Your task to perform on an android device: toggle show notifications on the lock screen Image 0: 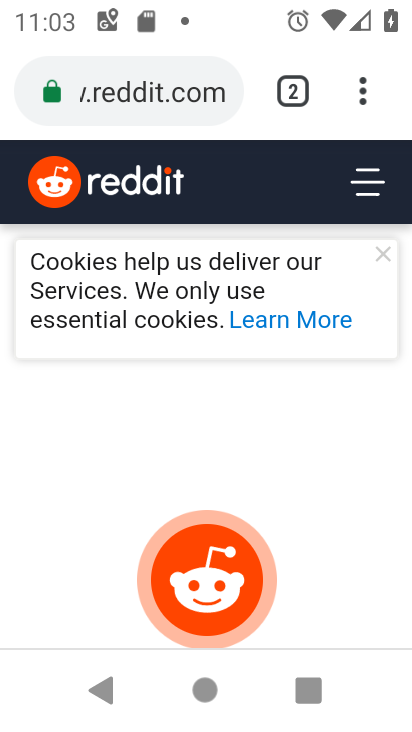
Step 0: press home button
Your task to perform on an android device: toggle show notifications on the lock screen Image 1: 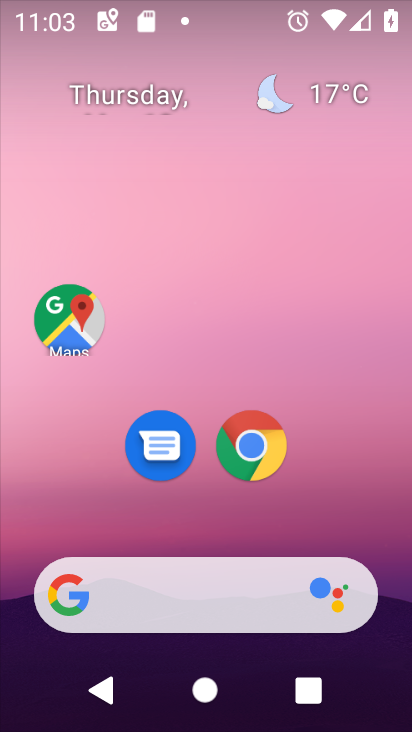
Step 1: drag from (235, 504) to (261, 170)
Your task to perform on an android device: toggle show notifications on the lock screen Image 2: 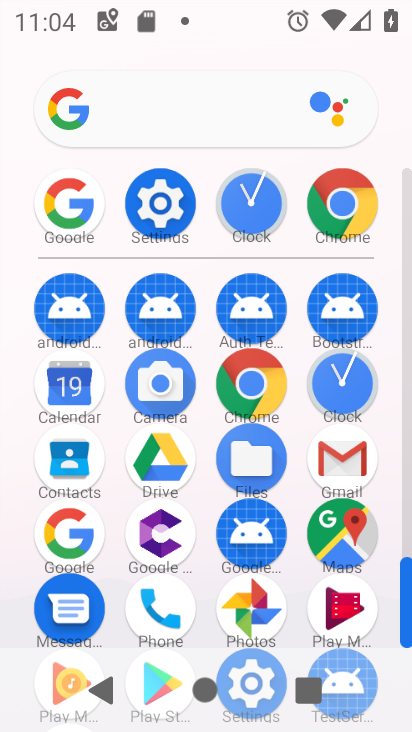
Step 2: click (172, 197)
Your task to perform on an android device: toggle show notifications on the lock screen Image 3: 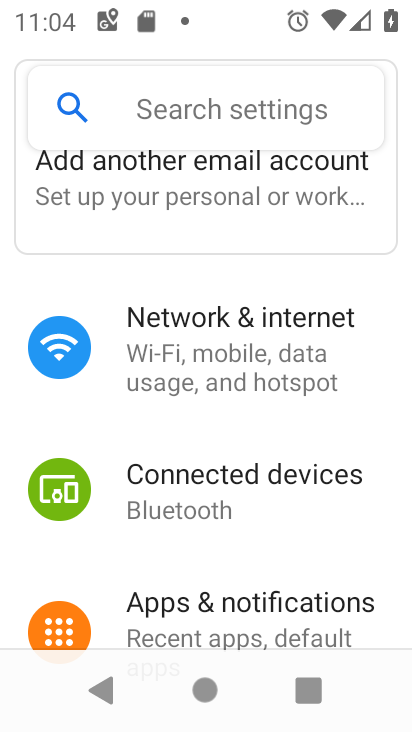
Step 3: drag from (226, 565) to (273, 327)
Your task to perform on an android device: toggle show notifications on the lock screen Image 4: 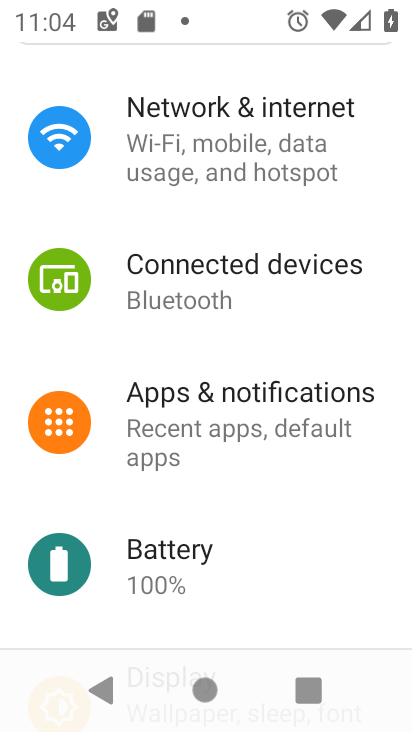
Step 4: click (274, 388)
Your task to perform on an android device: toggle show notifications on the lock screen Image 5: 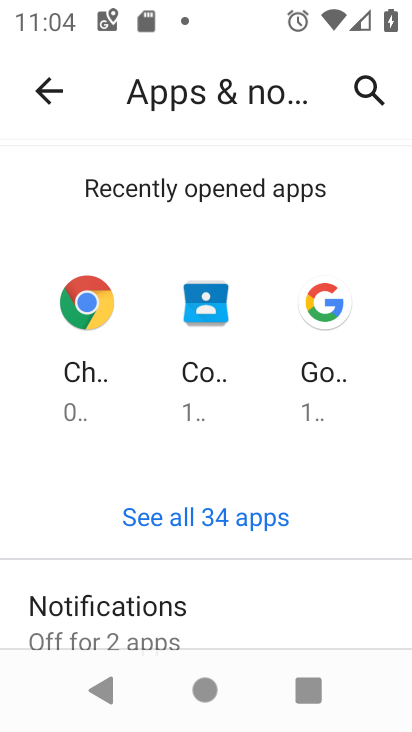
Step 5: click (220, 592)
Your task to perform on an android device: toggle show notifications on the lock screen Image 6: 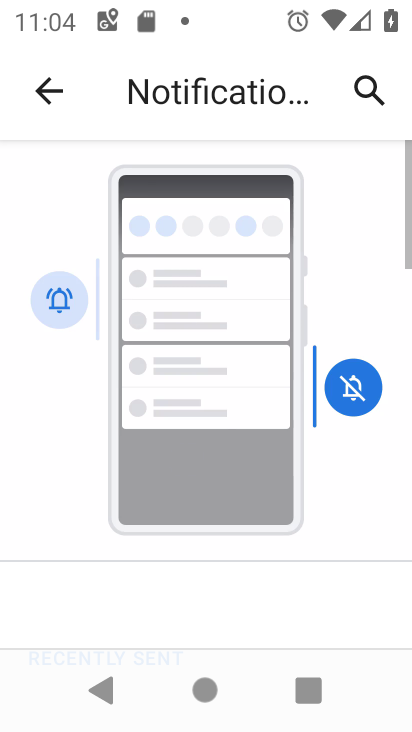
Step 6: drag from (219, 591) to (225, 306)
Your task to perform on an android device: toggle show notifications on the lock screen Image 7: 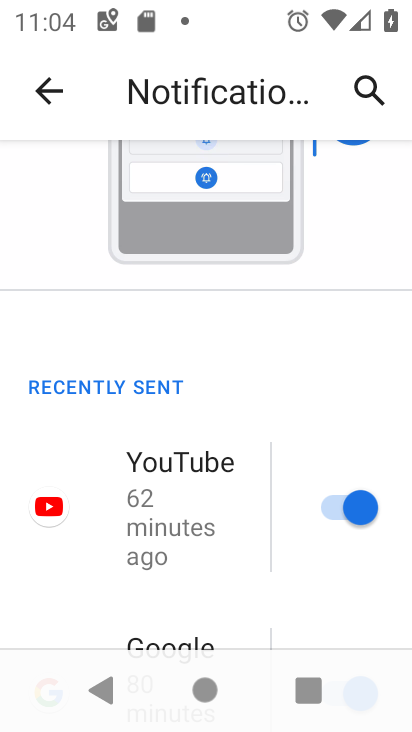
Step 7: drag from (243, 569) to (310, 225)
Your task to perform on an android device: toggle show notifications on the lock screen Image 8: 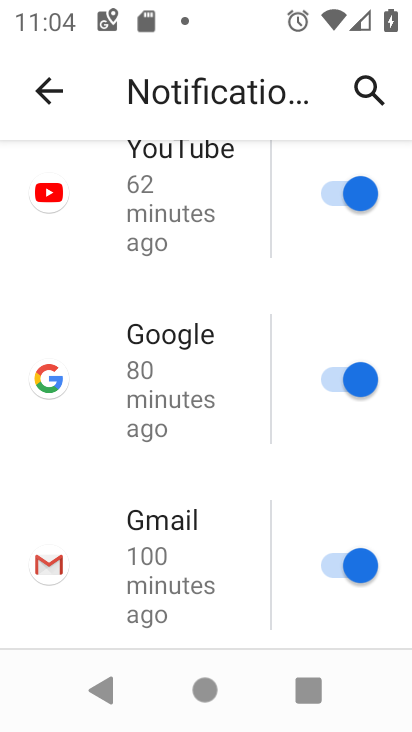
Step 8: drag from (301, 489) to (279, 186)
Your task to perform on an android device: toggle show notifications on the lock screen Image 9: 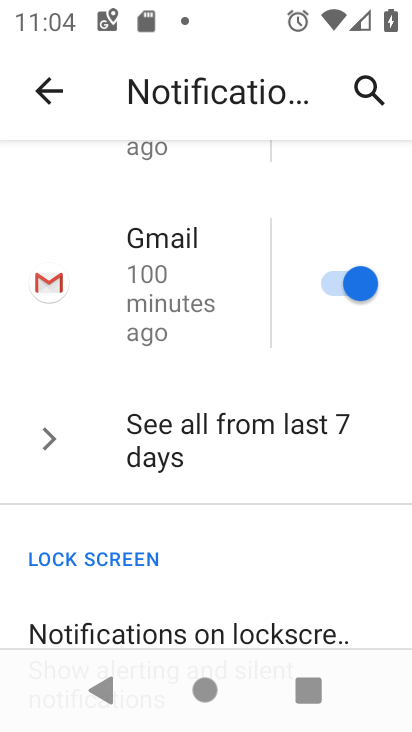
Step 9: click (211, 616)
Your task to perform on an android device: toggle show notifications on the lock screen Image 10: 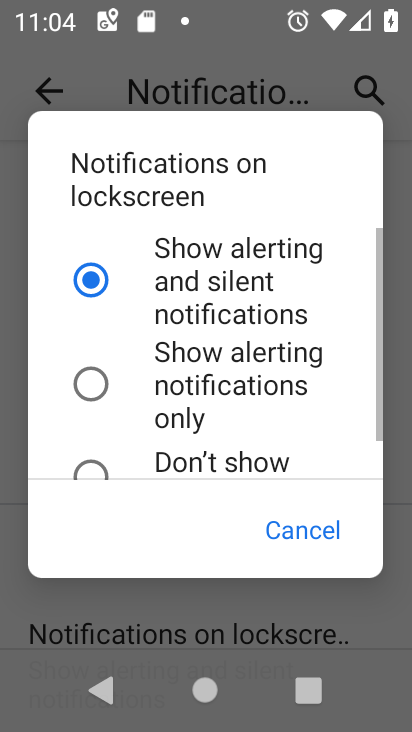
Step 10: click (238, 449)
Your task to perform on an android device: toggle show notifications on the lock screen Image 11: 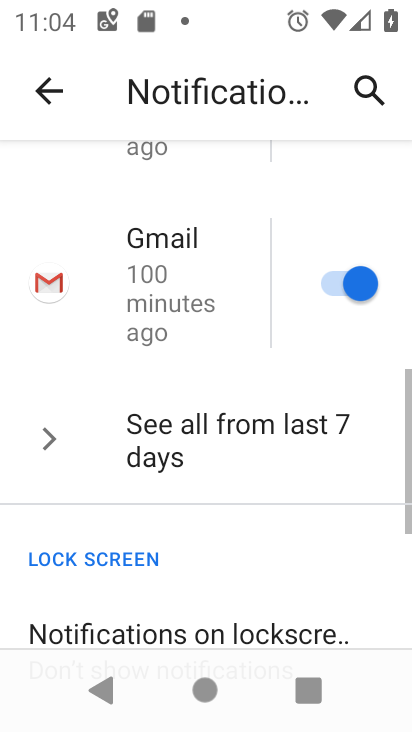
Step 11: task complete